Your task to perform on an android device: Open battery settings Image 0: 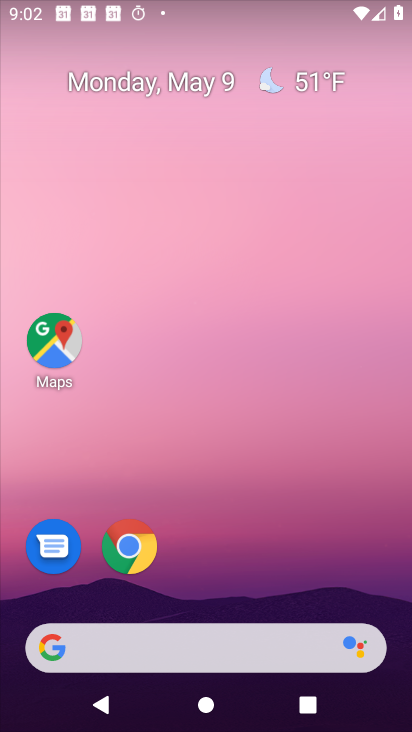
Step 0: drag from (221, 590) to (316, 4)
Your task to perform on an android device: Open battery settings Image 1: 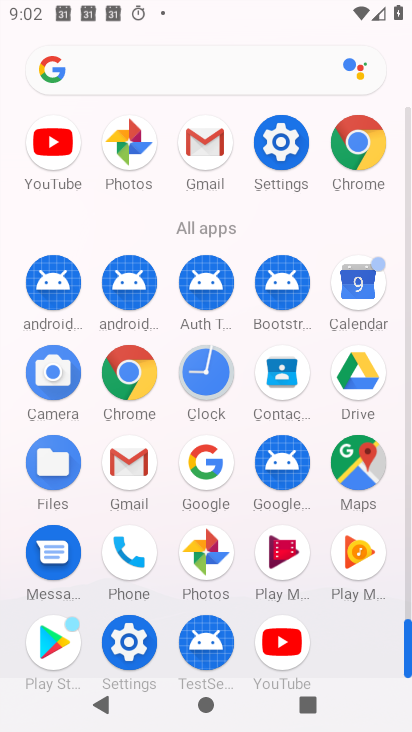
Step 1: click (140, 640)
Your task to perform on an android device: Open battery settings Image 2: 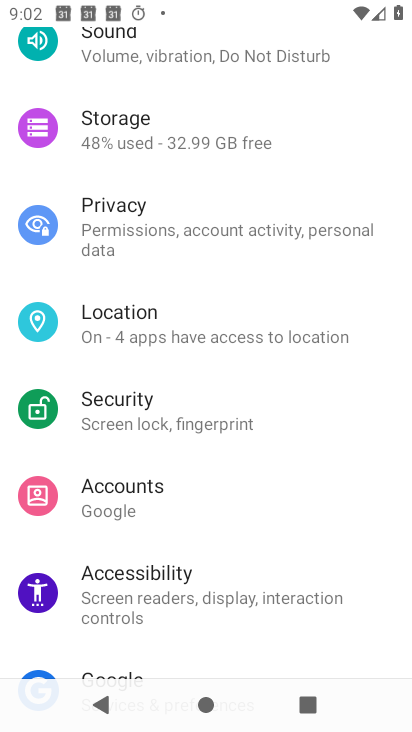
Step 2: drag from (239, 60) to (233, 427)
Your task to perform on an android device: Open battery settings Image 3: 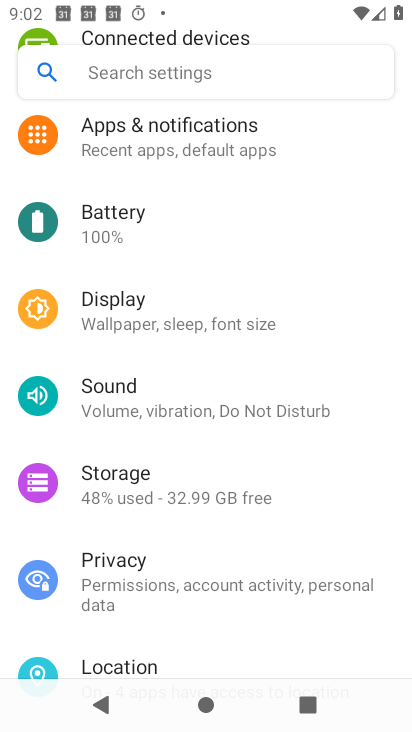
Step 3: click (116, 221)
Your task to perform on an android device: Open battery settings Image 4: 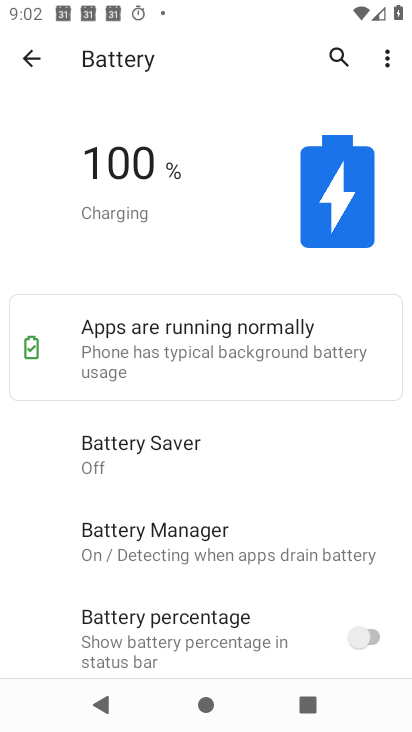
Step 4: task complete